Your task to perform on an android device: What's the weather? Image 0: 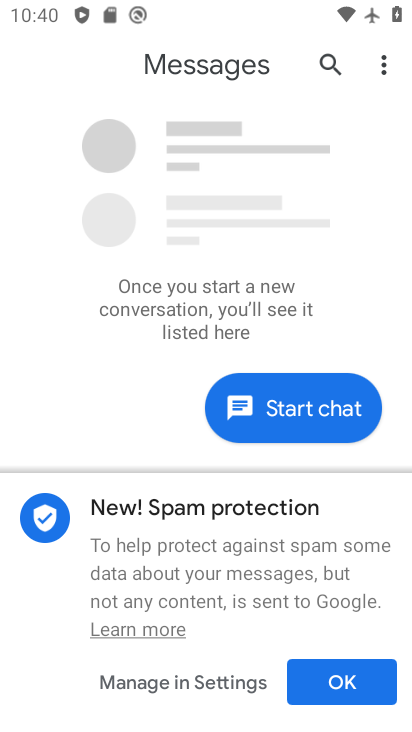
Step 0: press back button
Your task to perform on an android device: What's the weather? Image 1: 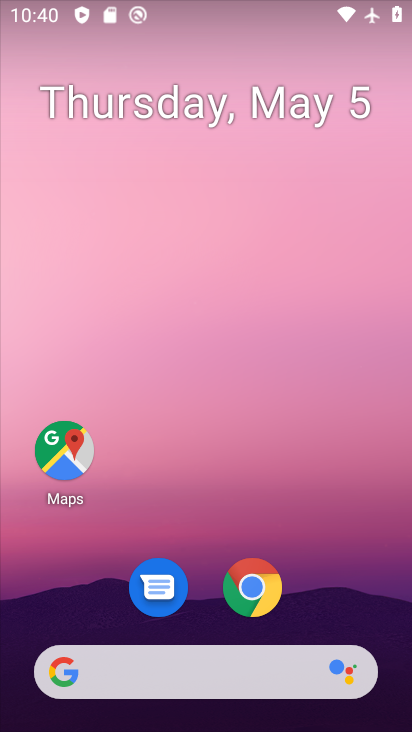
Step 1: drag from (353, 584) to (269, 7)
Your task to perform on an android device: What's the weather? Image 2: 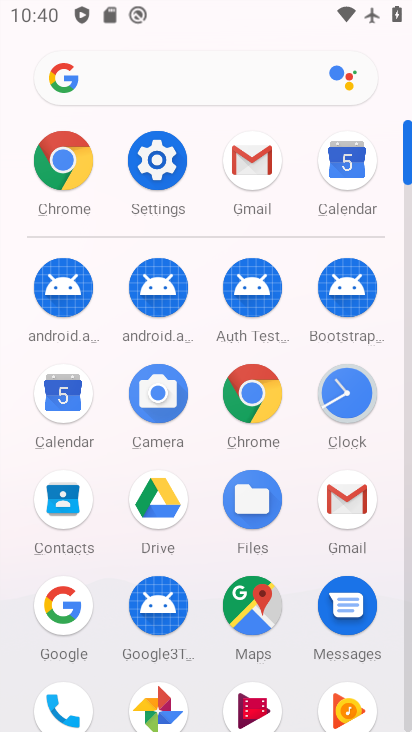
Step 2: drag from (9, 538) to (16, 146)
Your task to perform on an android device: What's the weather? Image 3: 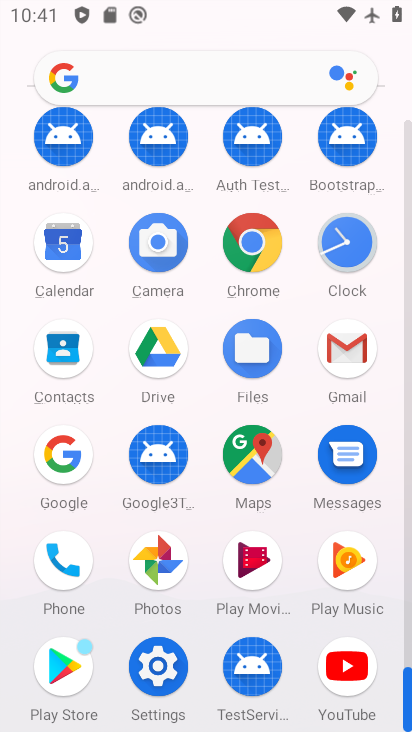
Step 3: click (251, 244)
Your task to perform on an android device: What's the weather? Image 4: 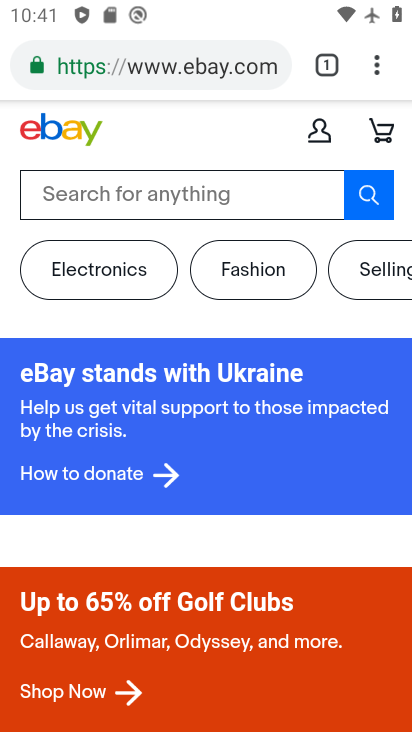
Step 4: click (209, 69)
Your task to perform on an android device: What's the weather? Image 5: 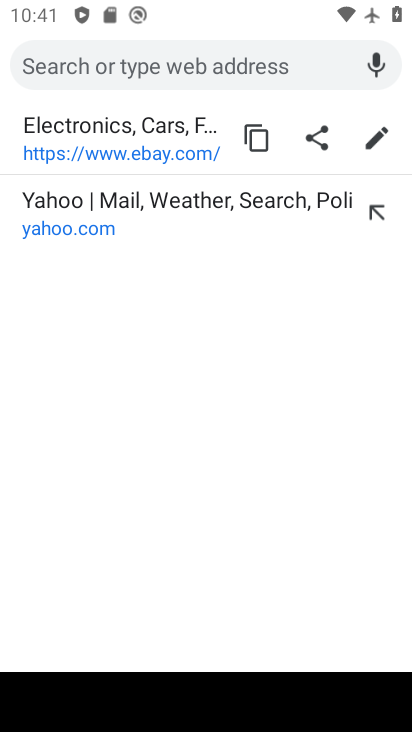
Step 5: click (186, 51)
Your task to perform on an android device: What's the weather? Image 6: 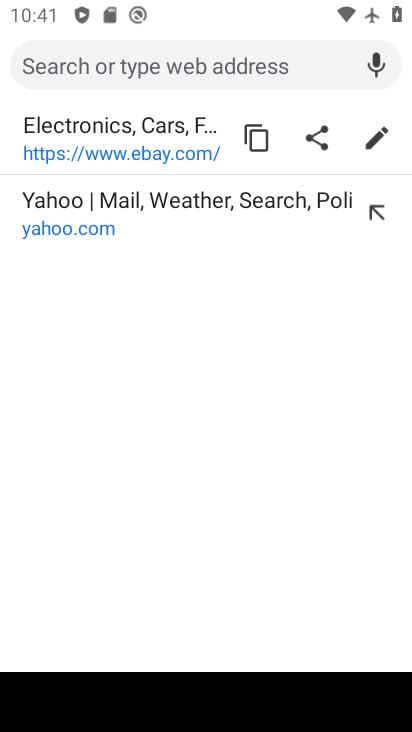
Step 6: type "What's the weather"
Your task to perform on an android device: What's the weather? Image 7: 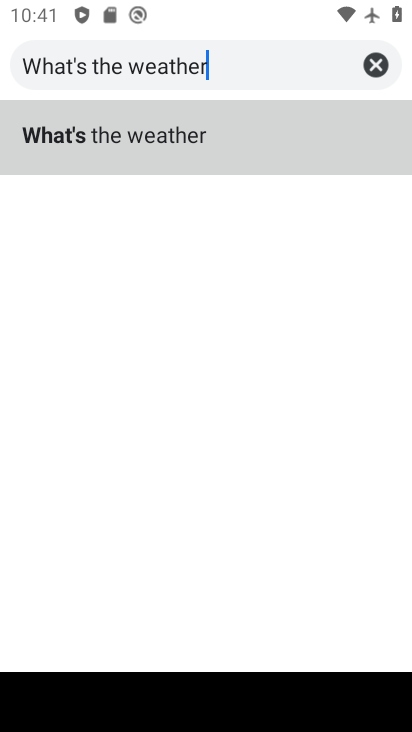
Step 7: type ""
Your task to perform on an android device: What's the weather? Image 8: 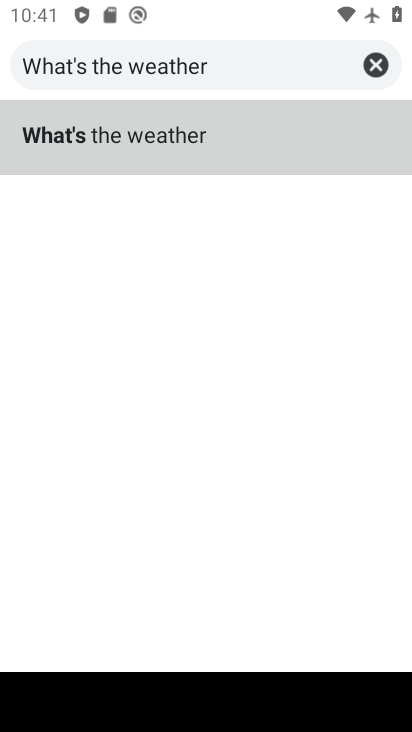
Step 8: click (213, 112)
Your task to perform on an android device: What's the weather? Image 9: 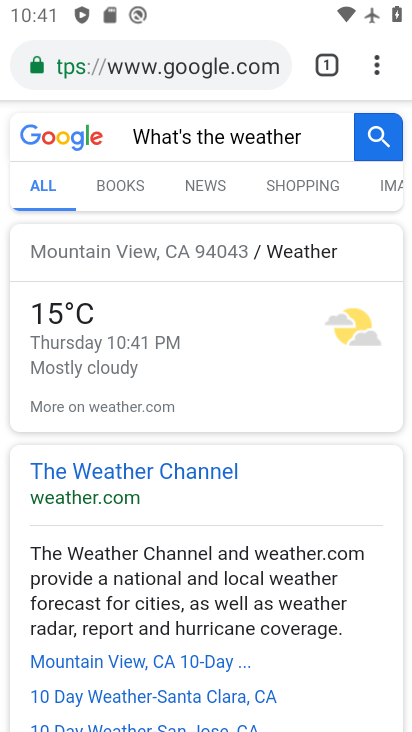
Step 9: task complete